Your task to perform on an android device: Open Google Maps and go to "Timeline" Image 0: 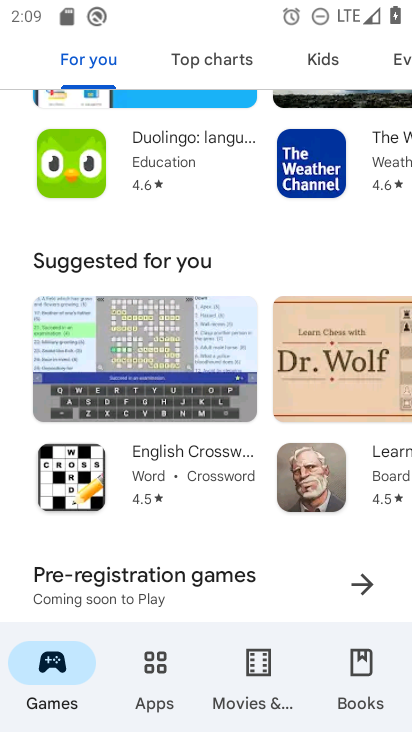
Step 0: press home button
Your task to perform on an android device: Open Google Maps and go to "Timeline" Image 1: 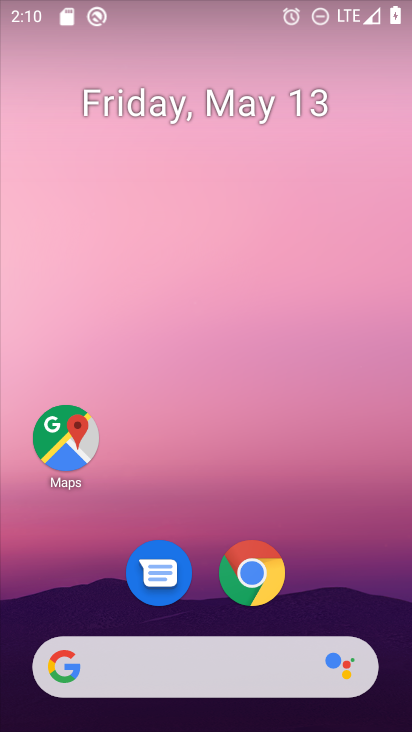
Step 1: click (82, 470)
Your task to perform on an android device: Open Google Maps and go to "Timeline" Image 2: 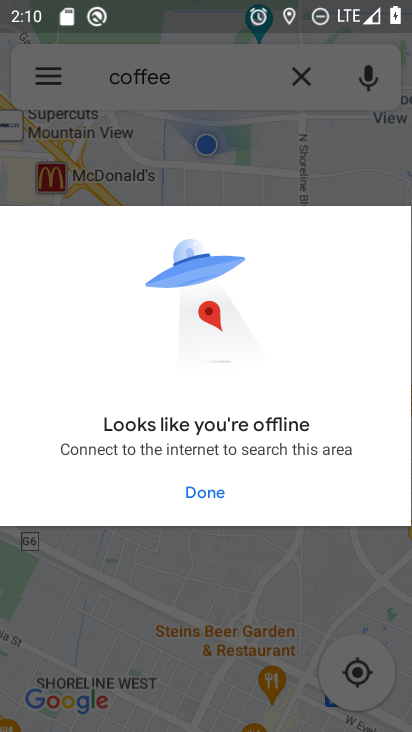
Step 2: click (214, 501)
Your task to perform on an android device: Open Google Maps and go to "Timeline" Image 3: 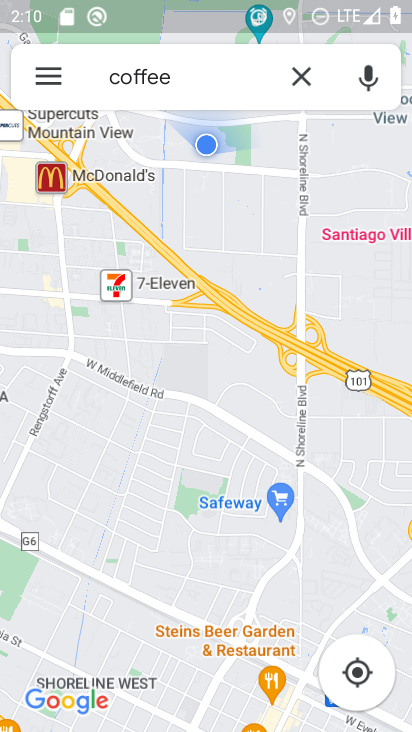
Step 3: click (54, 75)
Your task to perform on an android device: Open Google Maps and go to "Timeline" Image 4: 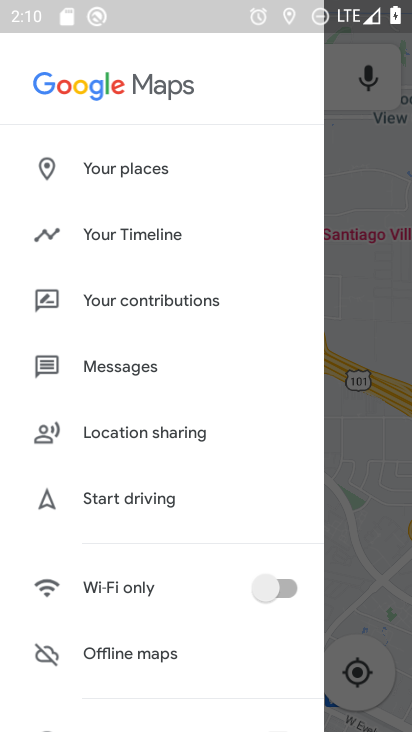
Step 4: click (172, 248)
Your task to perform on an android device: Open Google Maps and go to "Timeline" Image 5: 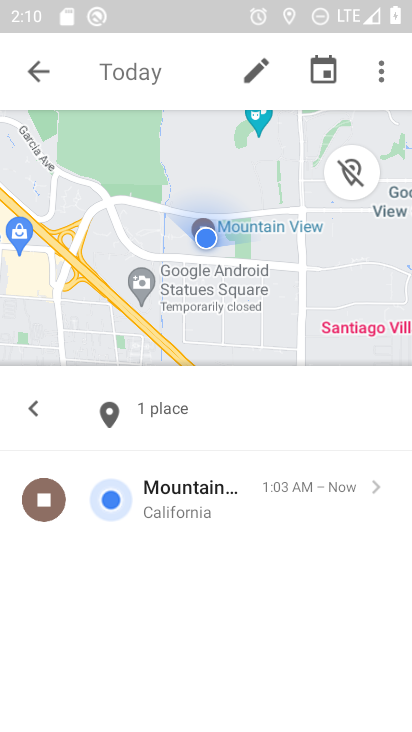
Step 5: task complete